Your task to perform on an android device: Turn off the flashlight Image 0: 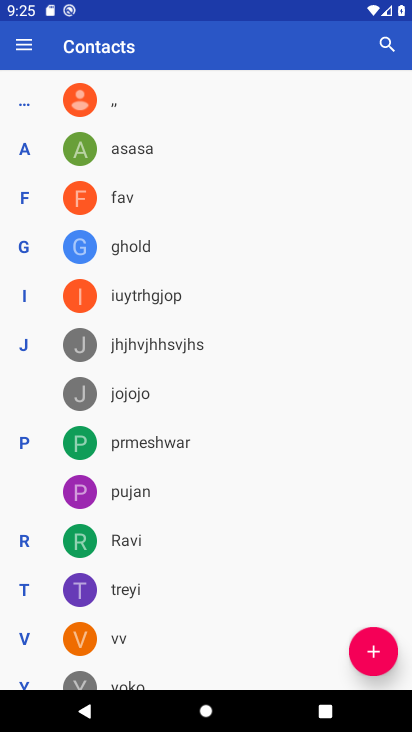
Step 0: press home button
Your task to perform on an android device: Turn off the flashlight Image 1: 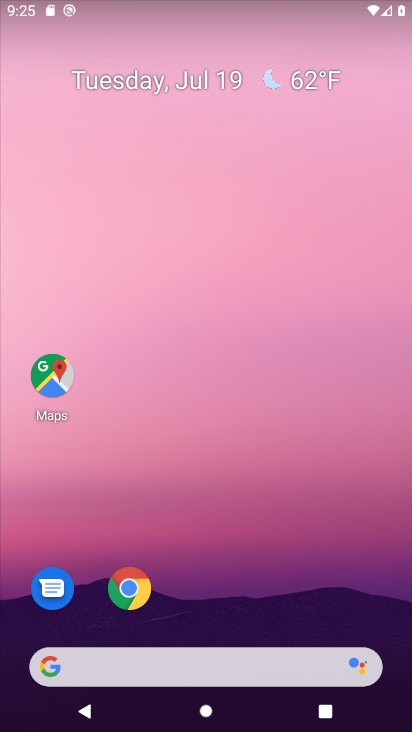
Step 1: task complete